Your task to perform on an android device: Turn on the flashlight Image 0: 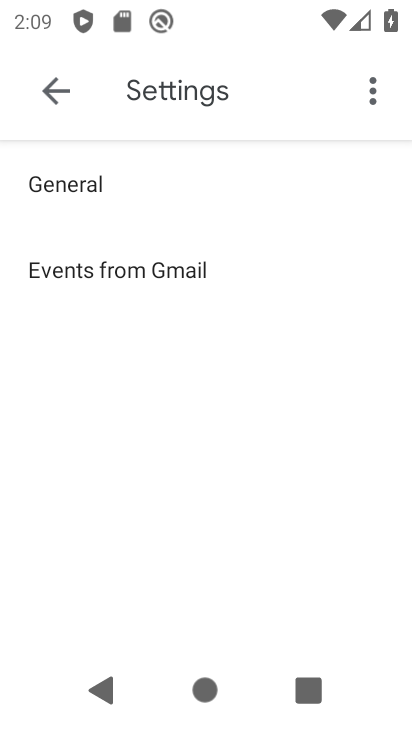
Step 0: press back button
Your task to perform on an android device: Turn on the flashlight Image 1: 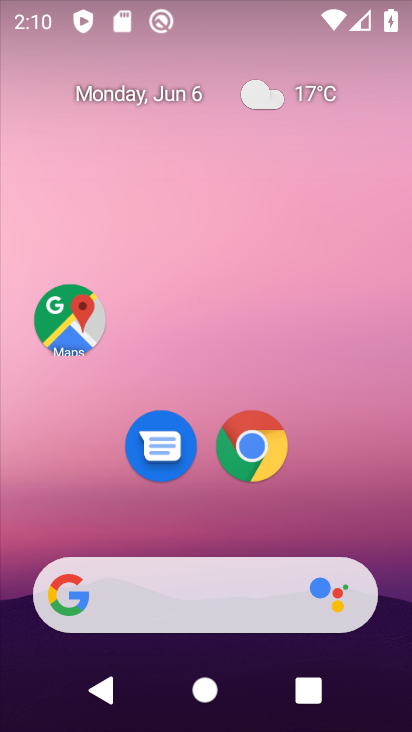
Step 1: drag from (204, 475) to (204, 65)
Your task to perform on an android device: Turn on the flashlight Image 2: 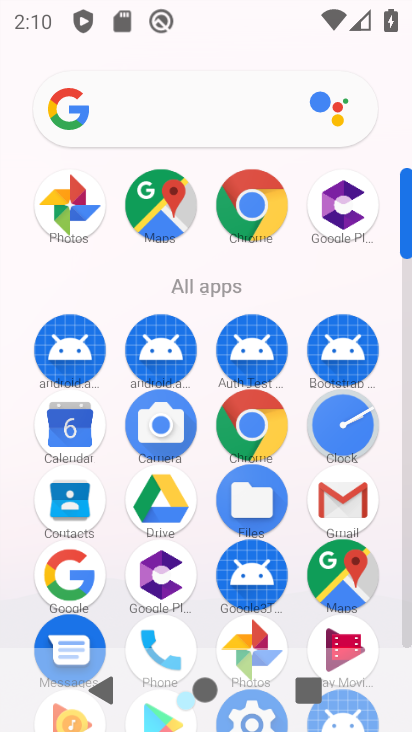
Step 2: drag from (225, 476) to (244, 96)
Your task to perform on an android device: Turn on the flashlight Image 3: 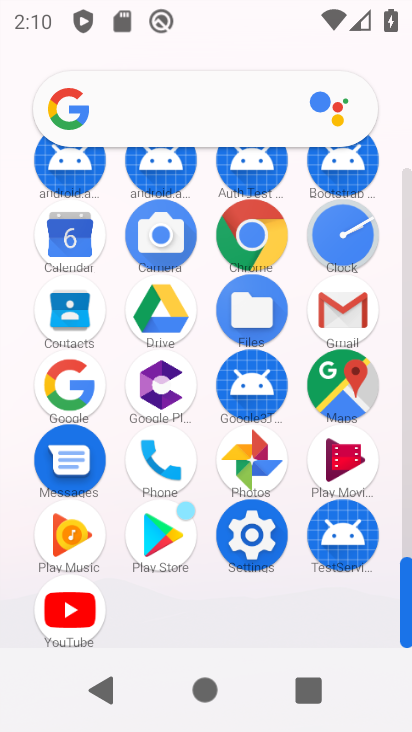
Step 3: click (256, 534)
Your task to perform on an android device: Turn on the flashlight Image 4: 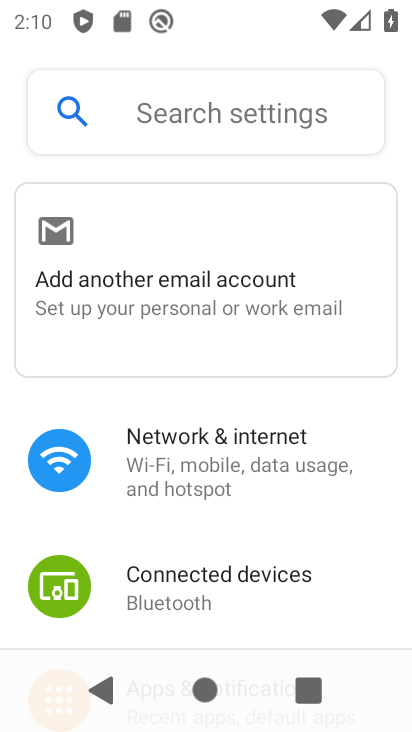
Step 4: click (196, 94)
Your task to perform on an android device: Turn on the flashlight Image 5: 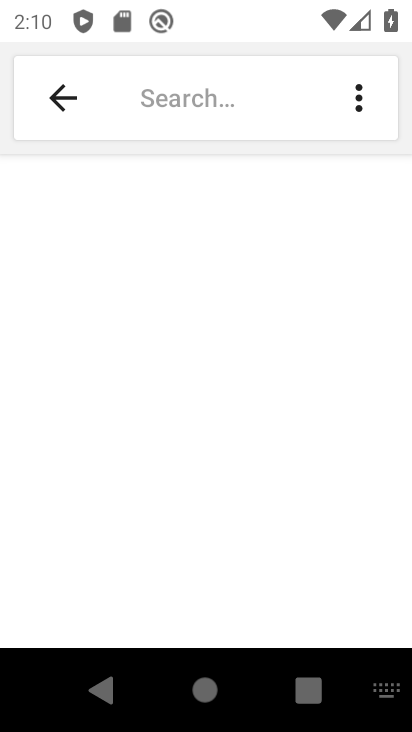
Step 5: type "flashlight"
Your task to perform on an android device: Turn on the flashlight Image 6: 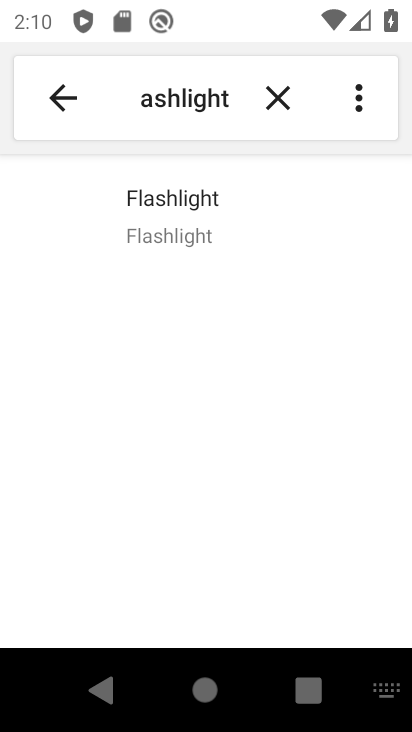
Step 6: click (188, 228)
Your task to perform on an android device: Turn on the flashlight Image 7: 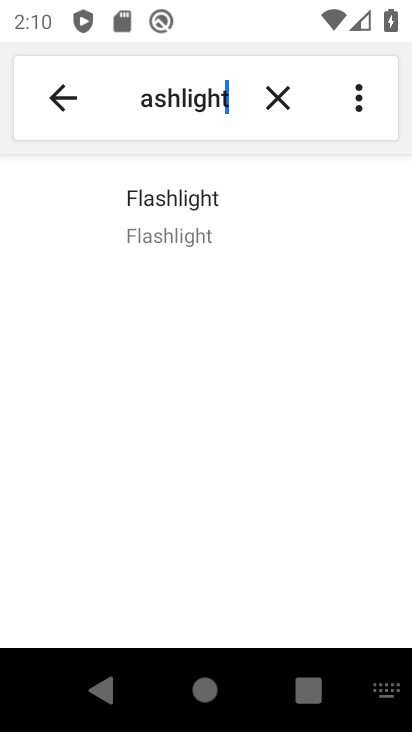
Step 7: task complete